Your task to perform on an android device: See recent photos Image 0: 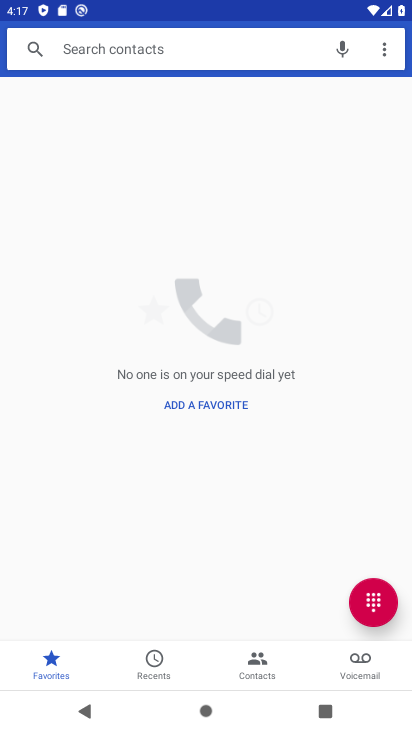
Step 0: press back button
Your task to perform on an android device: See recent photos Image 1: 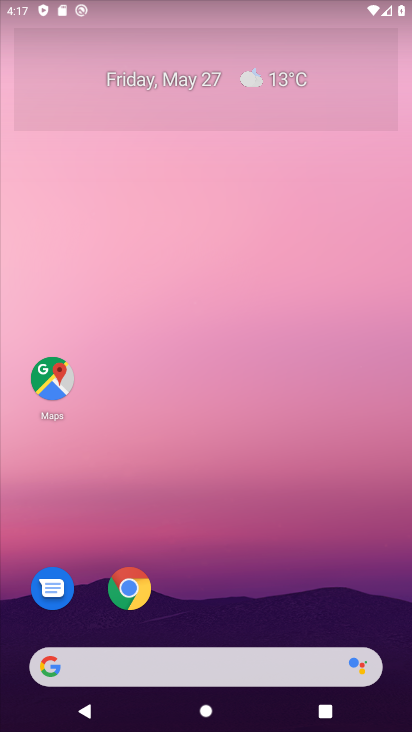
Step 1: click (125, 659)
Your task to perform on an android device: See recent photos Image 2: 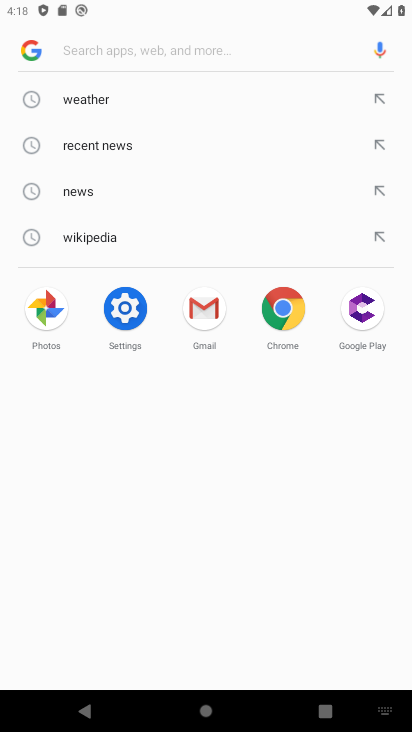
Step 2: press back button
Your task to perform on an android device: See recent photos Image 3: 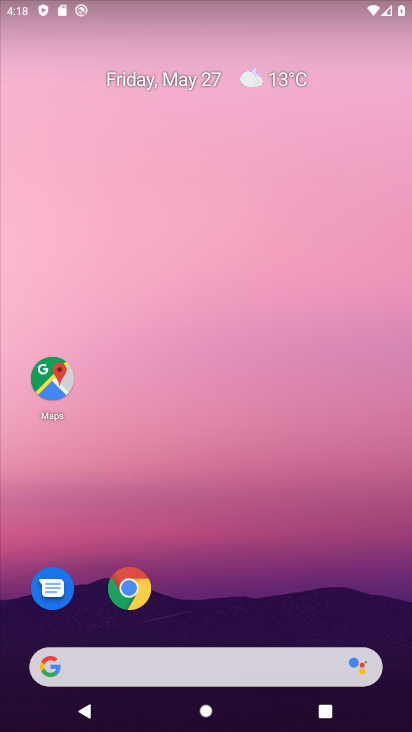
Step 3: drag from (215, 545) to (276, 18)
Your task to perform on an android device: See recent photos Image 4: 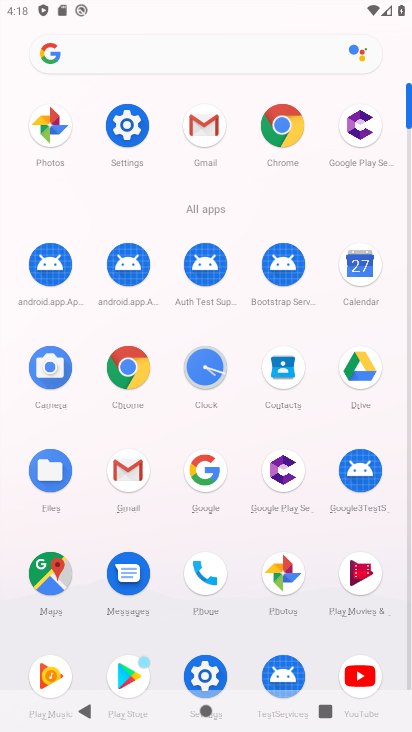
Step 4: click (276, 573)
Your task to perform on an android device: See recent photos Image 5: 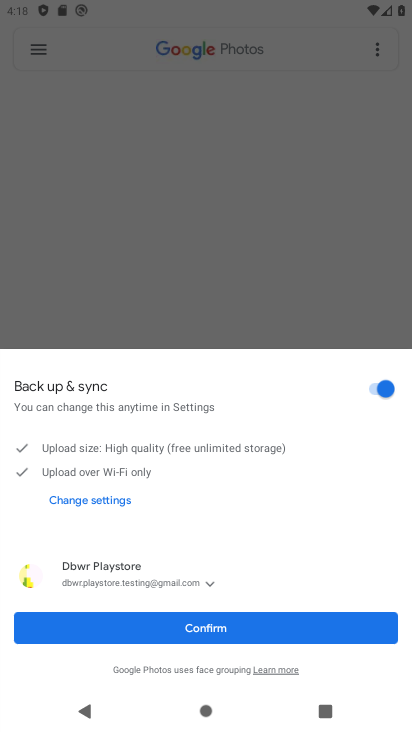
Step 5: click (208, 622)
Your task to perform on an android device: See recent photos Image 6: 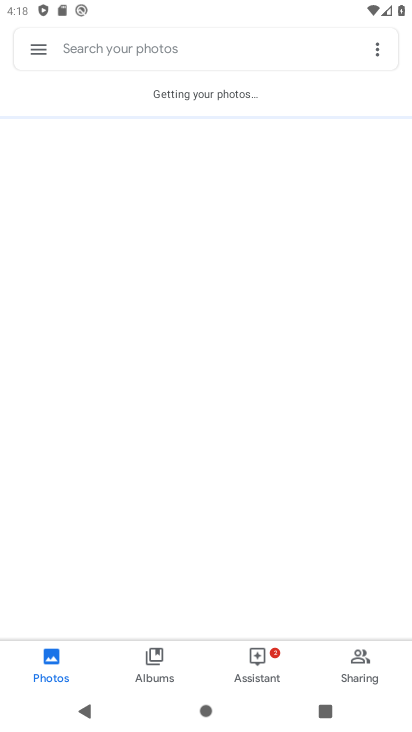
Step 6: click (52, 665)
Your task to perform on an android device: See recent photos Image 7: 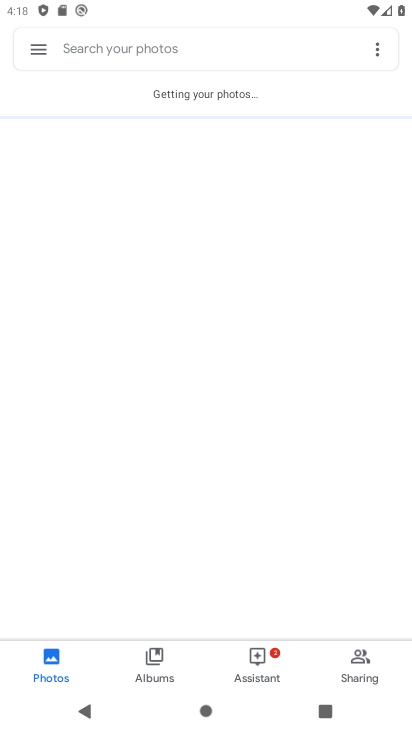
Step 7: task complete